Your task to perform on an android device: Open calendar and show me the fourth week of next month Image 0: 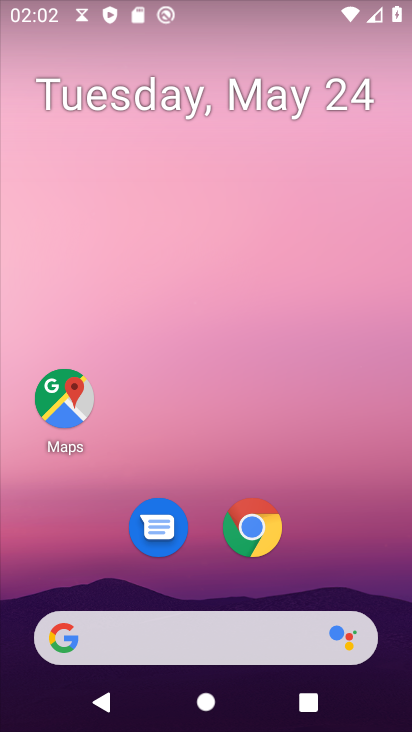
Step 0: press home button
Your task to perform on an android device: Open calendar and show me the fourth week of next month Image 1: 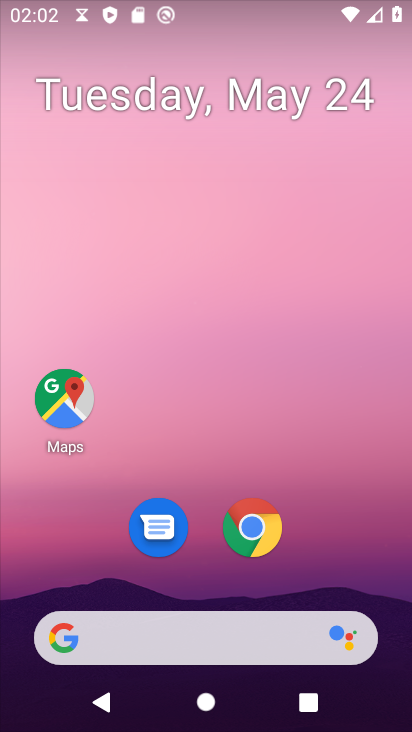
Step 1: drag from (166, 631) to (284, 131)
Your task to perform on an android device: Open calendar and show me the fourth week of next month Image 2: 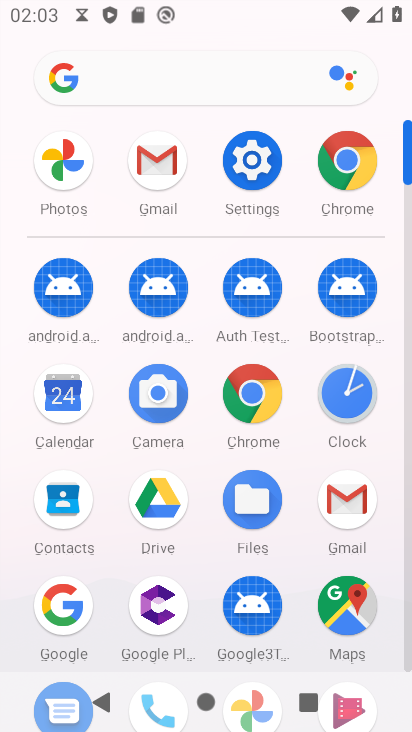
Step 2: click (64, 398)
Your task to perform on an android device: Open calendar and show me the fourth week of next month Image 3: 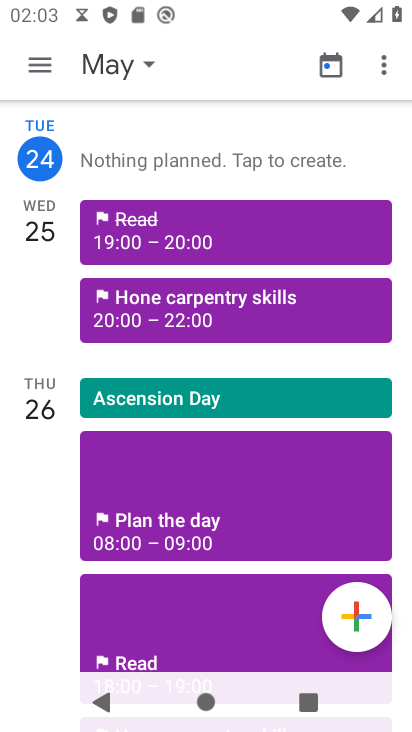
Step 3: click (116, 70)
Your task to perform on an android device: Open calendar and show me the fourth week of next month Image 4: 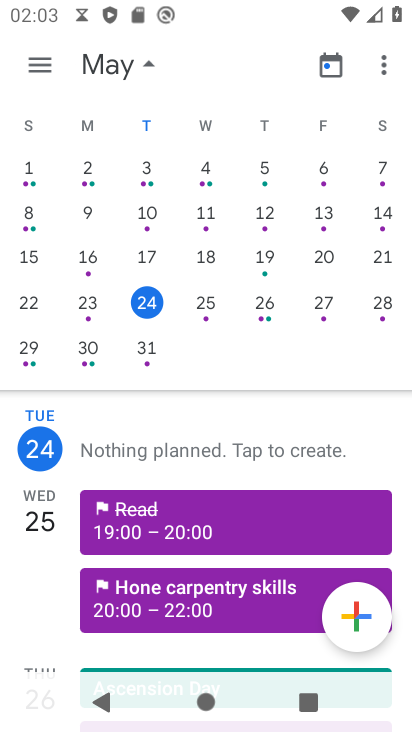
Step 4: drag from (361, 263) to (84, 232)
Your task to perform on an android device: Open calendar and show me the fourth week of next month Image 5: 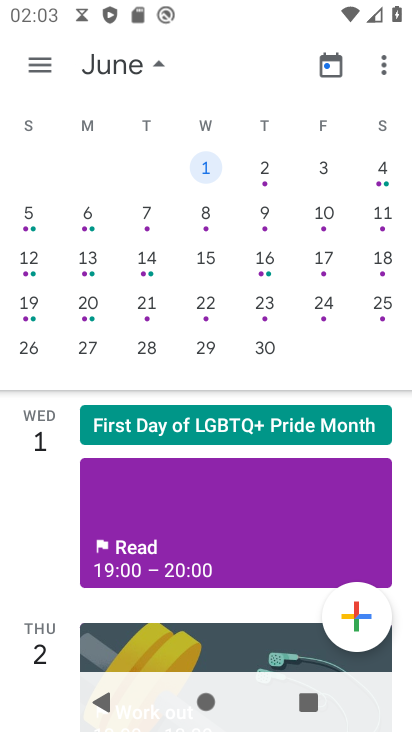
Step 5: click (23, 304)
Your task to perform on an android device: Open calendar and show me the fourth week of next month Image 6: 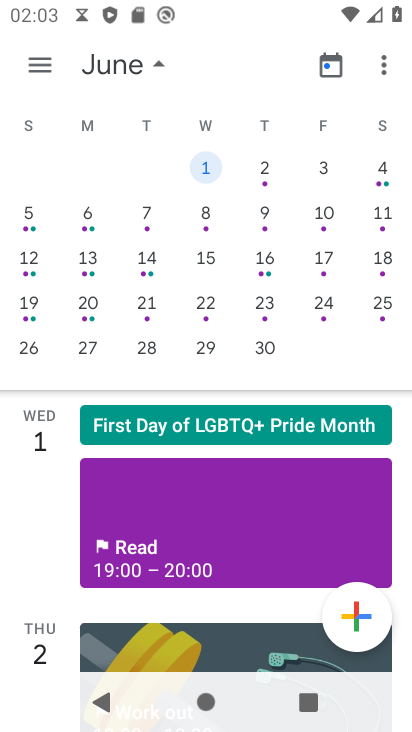
Step 6: click (37, 308)
Your task to perform on an android device: Open calendar and show me the fourth week of next month Image 7: 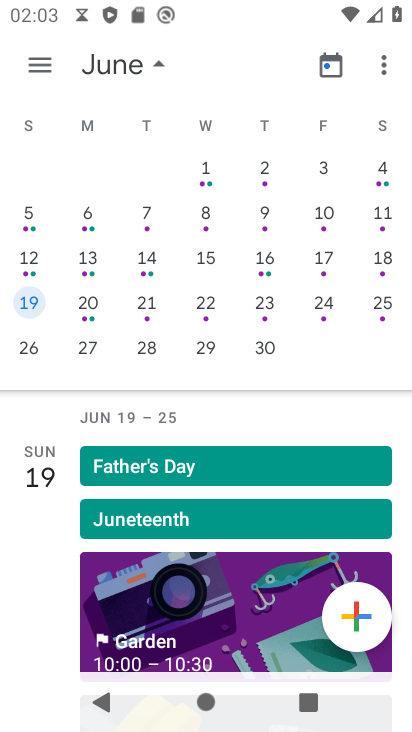
Step 7: click (39, 73)
Your task to perform on an android device: Open calendar and show me the fourth week of next month Image 8: 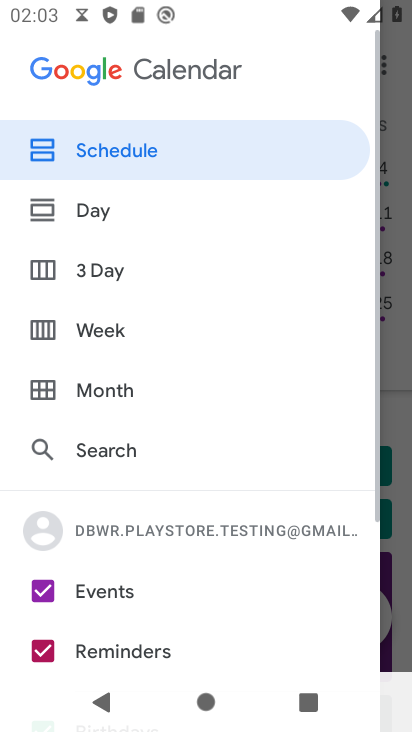
Step 8: click (127, 330)
Your task to perform on an android device: Open calendar and show me the fourth week of next month Image 9: 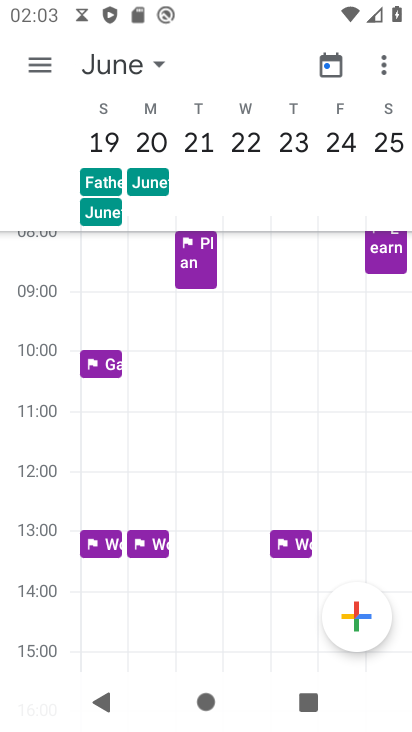
Step 9: task complete